Your task to perform on an android device: Open the web browser Image 0: 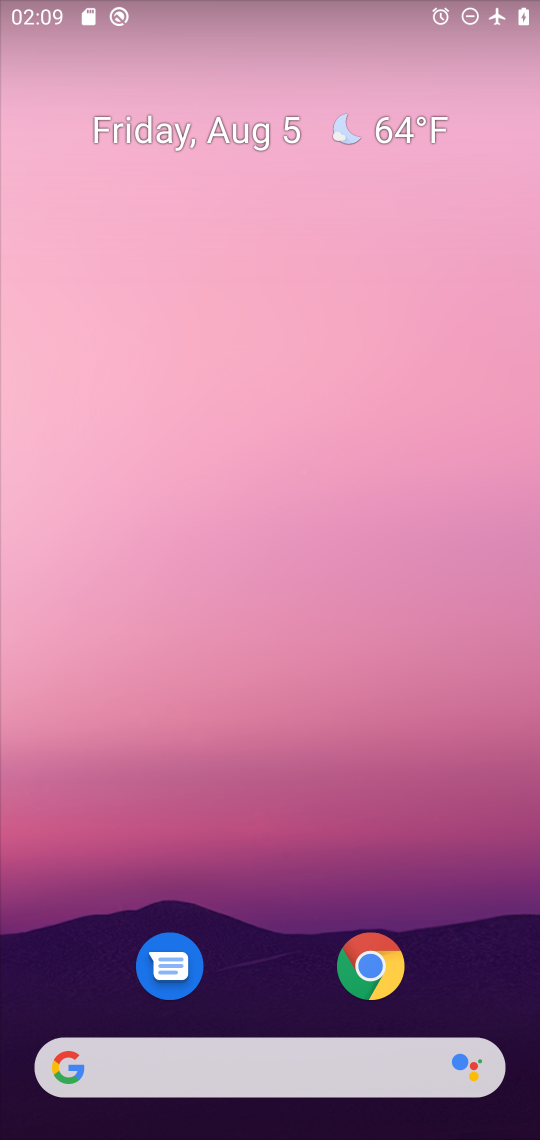
Step 0: click (269, 1064)
Your task to perform on an android device: Open the web browser Image 1: 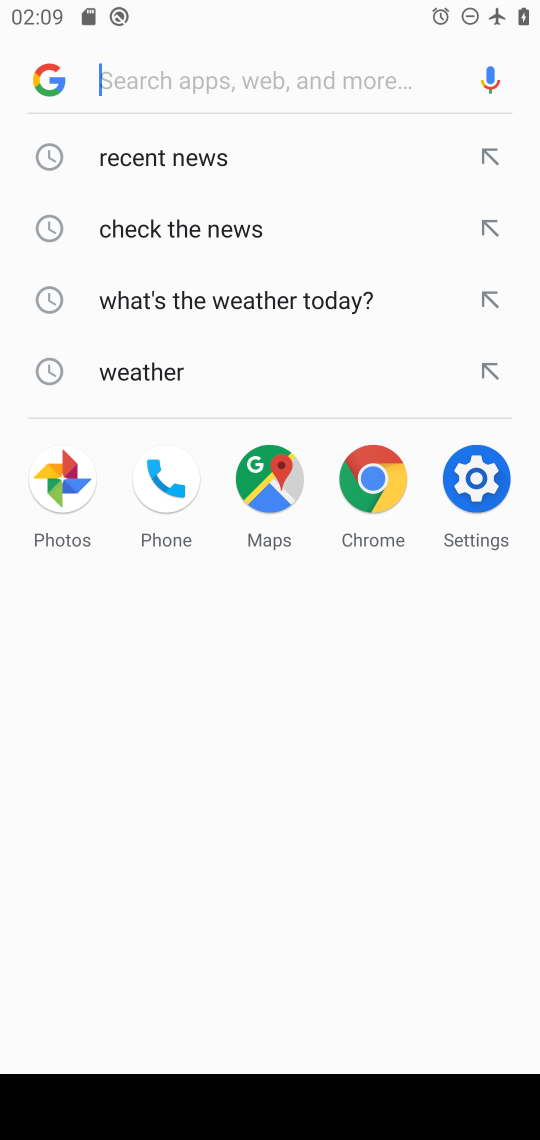
Step 1: task complete